Your task to perform on an android device: turn on improve location accuracy Image 0: 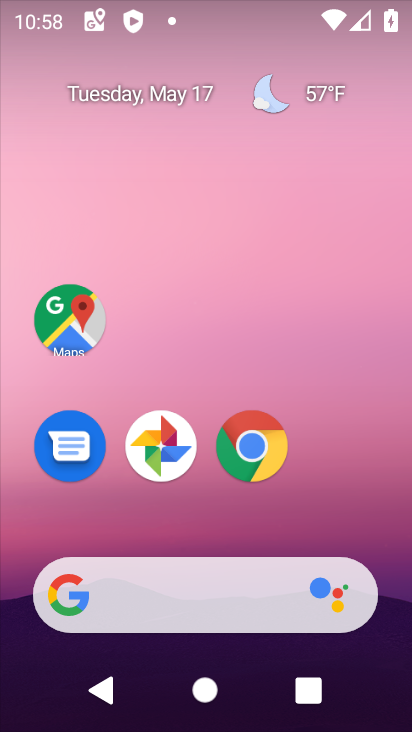
Step 0: drag from (165, 596) to (150, 135)
Your task to perform on an android device: turn on improve location accuracy Image 1: 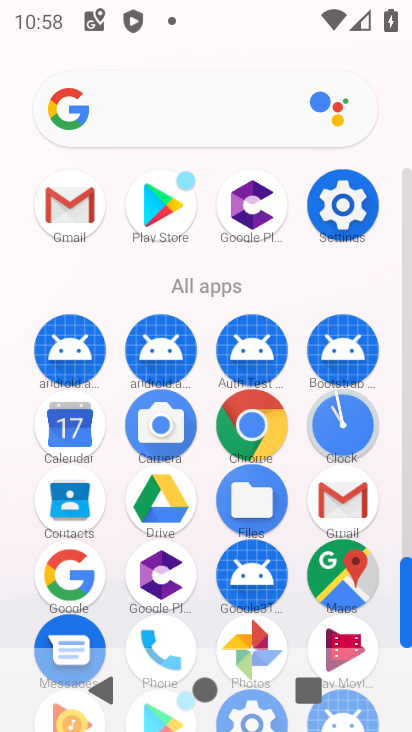
Step 1: click (326, 202)
Your task to perform on an android device: turn on improve location accuracy Image 2: 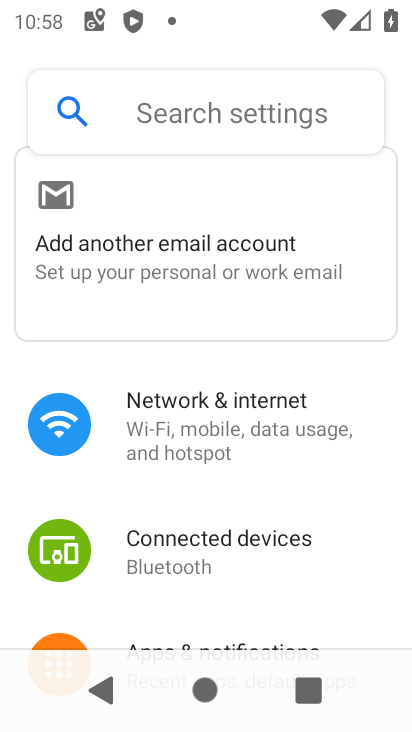
Step 2: drag from (189, 554) to (132, 51)
Your task to perform on an android device: turn on improve location accuracy Image 3: 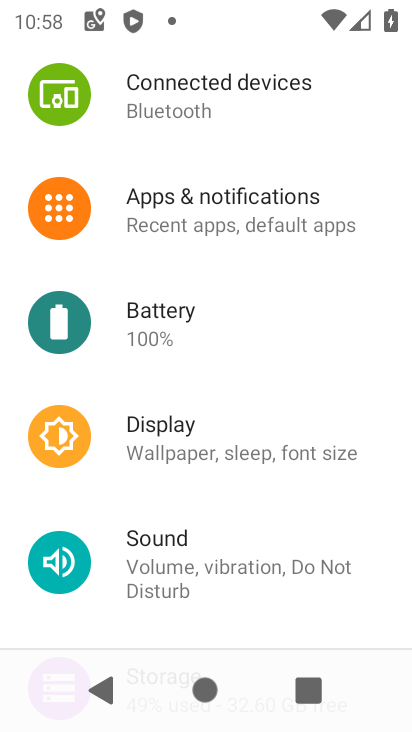
Step 3: drag from (231, 512) to (222, 3)
Your task to perform on an android device: turn on improve location accuracy Image 4: 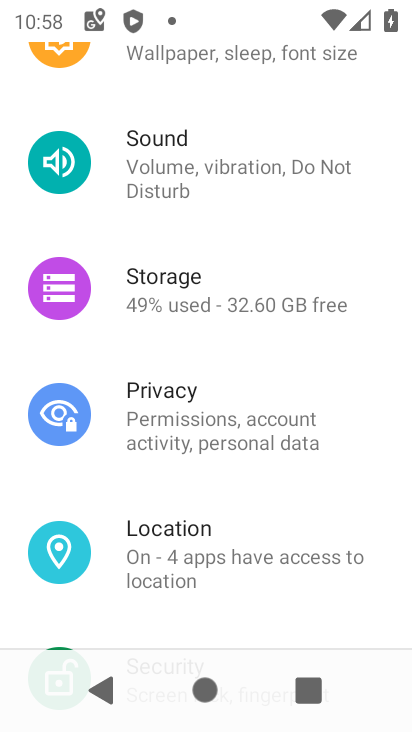
Step 4: click (190, 564)
Your task to perform on an android device: turn on improve location accuracy Image 5: 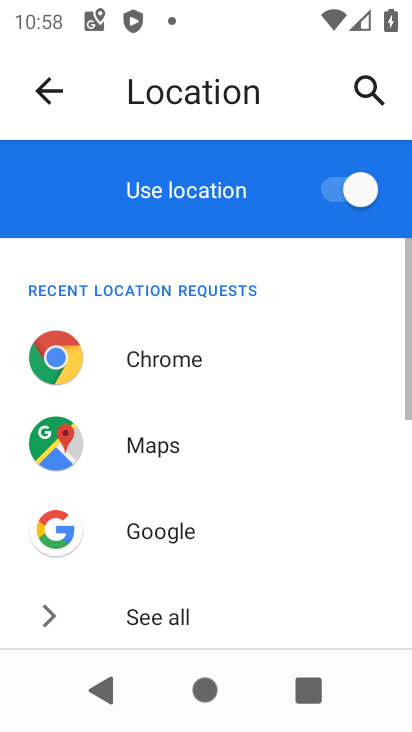
Step 5: drag from (153, 586) to (10, 19)
Your task to perform on an android device: turn on improve location accuracy Image 6: 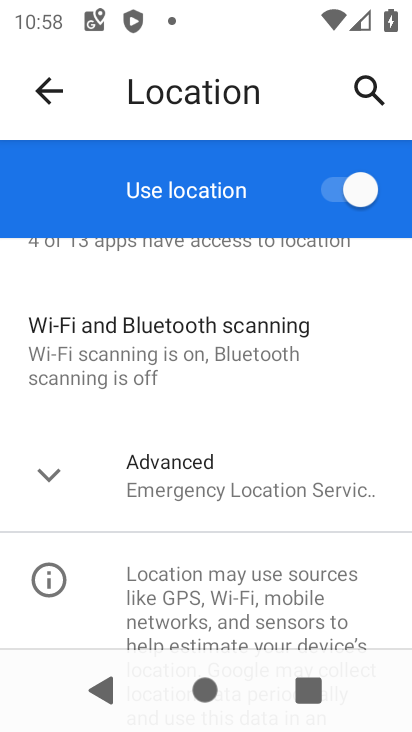
Step 6: click (109, 494)
Your task to perform on an android device: turn on improve location accuracy Image 7: 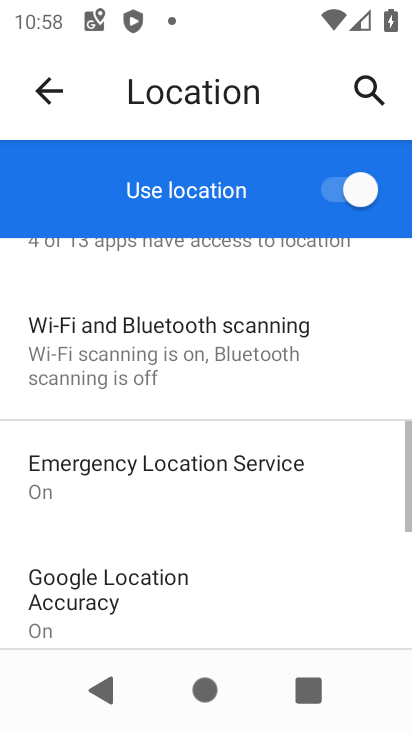
Step 7: drag from (177, 553) to (145, 305)
Your task to perform on an android device: turn on improve location accuracy Image 8: 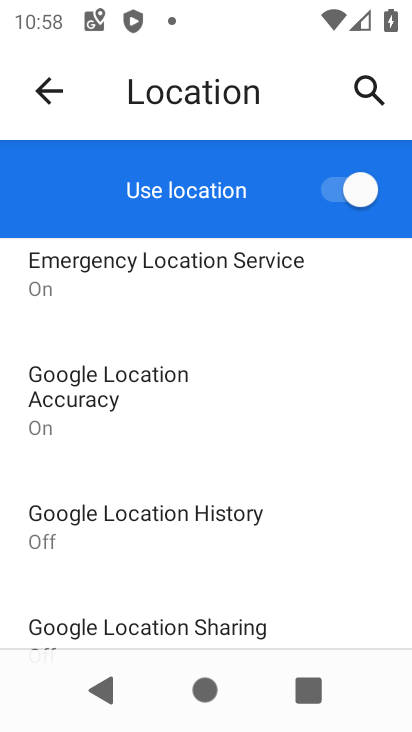
Step 8: click (121, 368)
Your task to perform on an android device: turn on improve location accuracy Image 9: 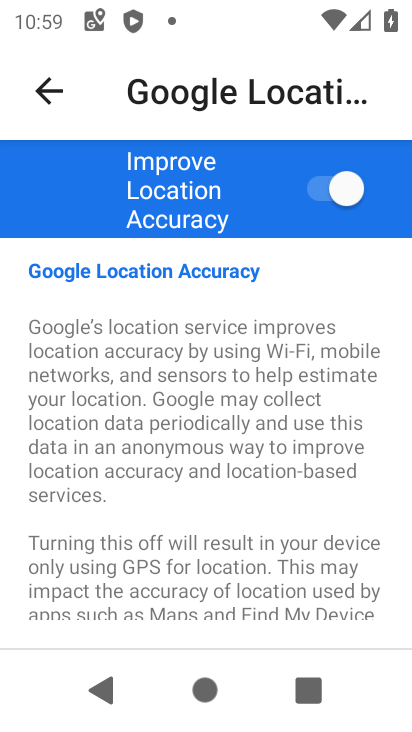
Step 9: task complete